Your task to perform on an android device: change notifications settings Image 0: 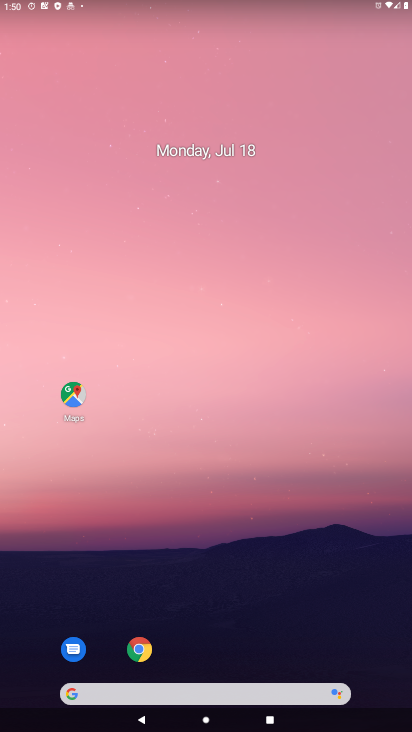
Step 0: drag from (221, 545) to (221, 19)
Your task to perform on an android device: change notifications settings Image 1: 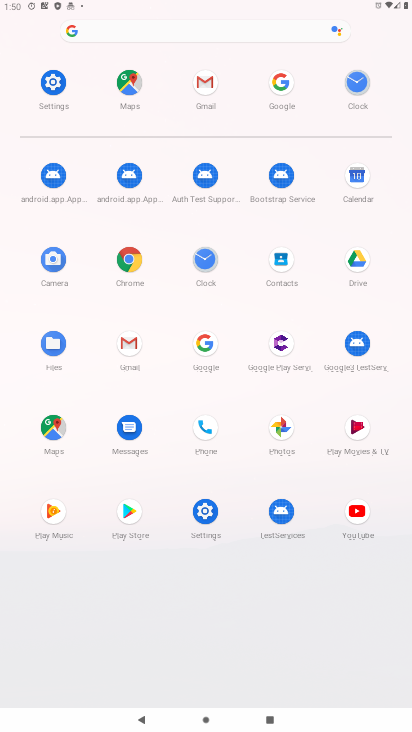
Step 1: click (196, 524)
Your task to perform on an android device: change notifications settings Image 2: 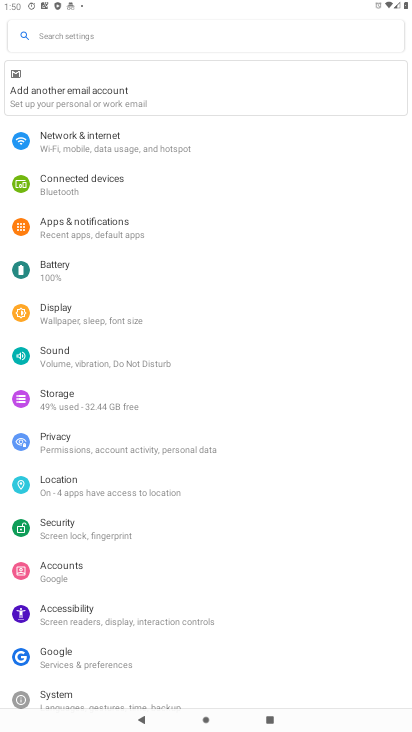
Step 2: click (90, 220)
Your task to perform on an android device: change notifications settings Image 3: 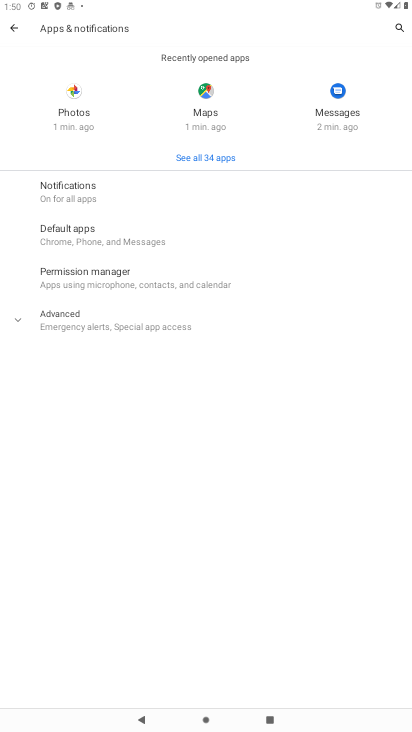
Step 3: click (89, 316)
Your task to perform on an android device: change notifications settings Image 4: 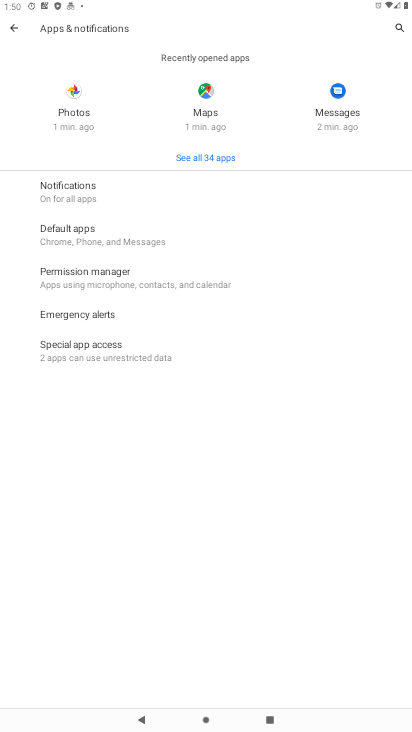
Step 4: click (72, 203)
Your task to perform on an android device: change notifications settings Image 5: 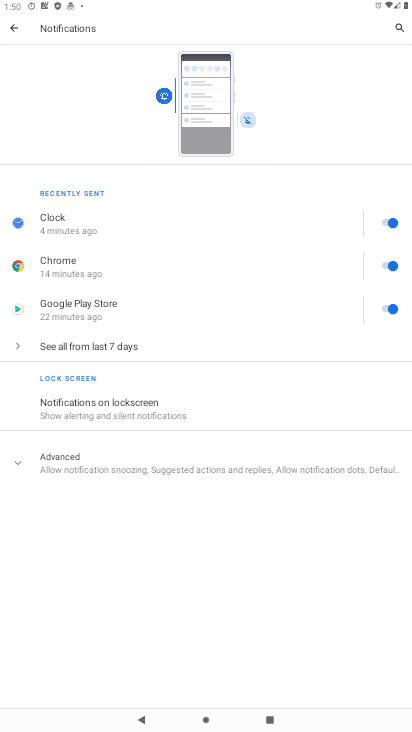
Step 5: task complete